Your task to perform on an android device: change alarm snooze length Image 0: 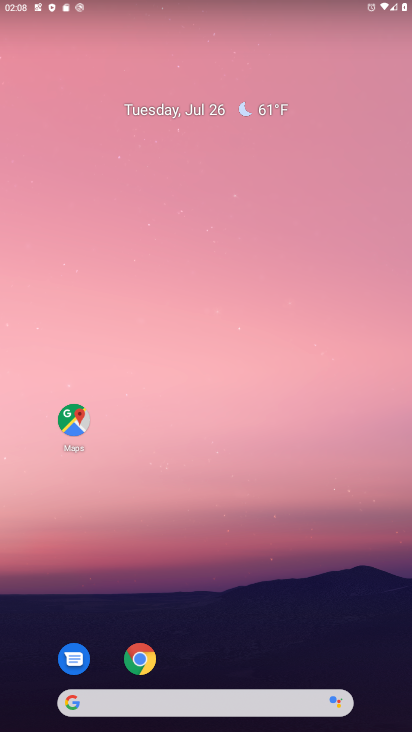
Step 0: drag from (311, 639) to (278, 144)
Your task to perform on an android device: change alarm snooze length Image 1: 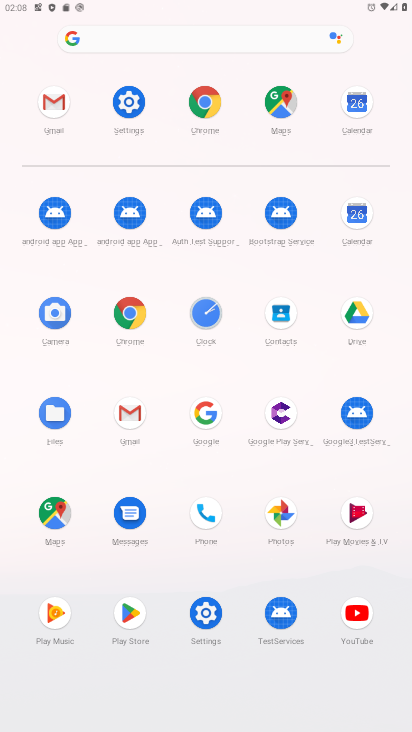
Step 1: click (204, 308)
Your task to perform on an android device: change alarm snooze length Image 2: 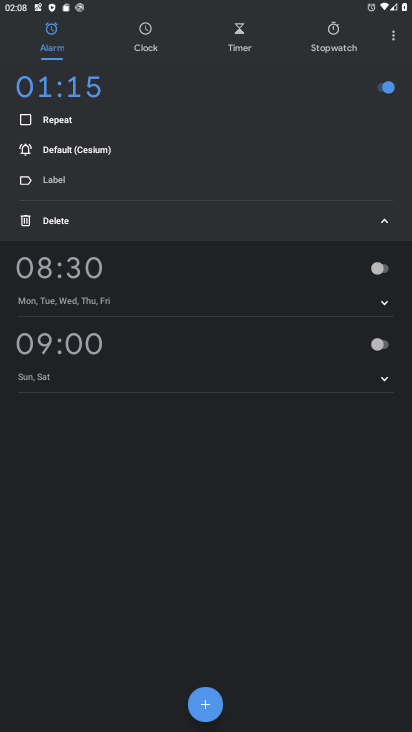
Step 2: click (391, 28)
Your task to perform on an android device: change alarm snooze length Image 3: 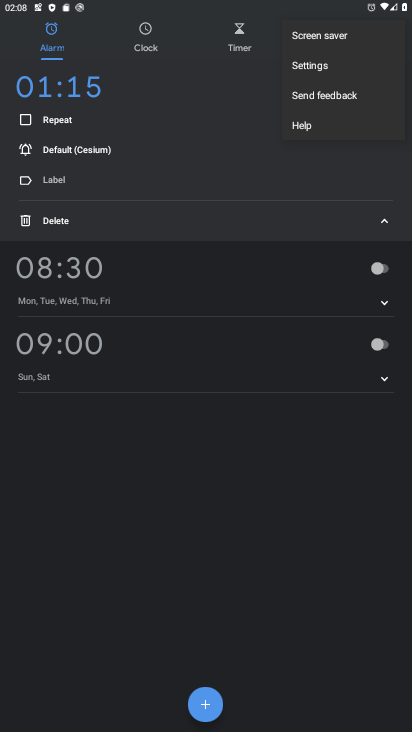
Step 3: click (315, 73)
Your task to perform on an android device: change alarm snooze length Image 4: 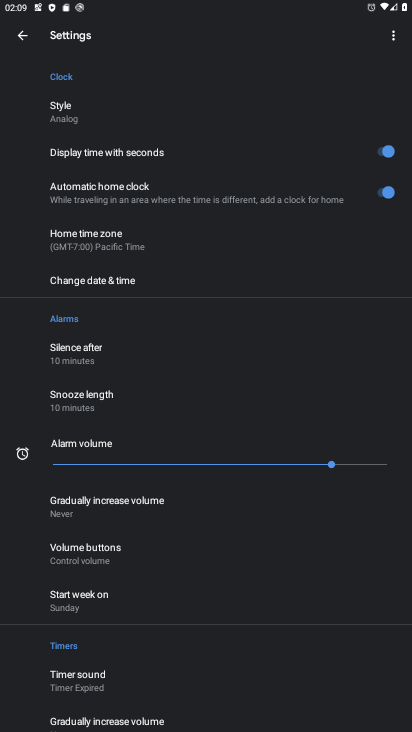
Step 4: click (111, 396)
Your task to perform on an android device: change alarm snooze length Image 5: 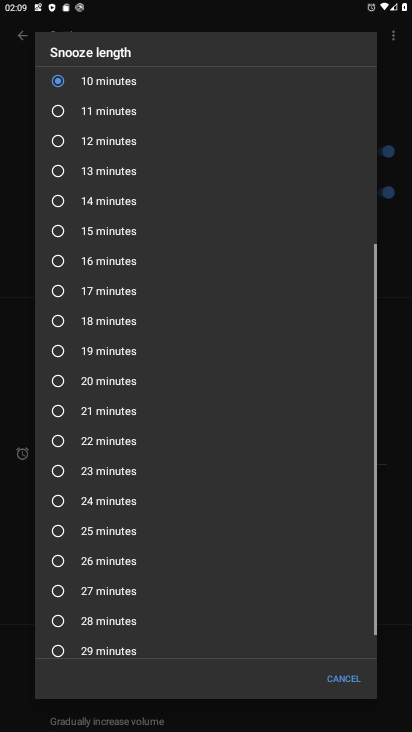
Step 5: click (125, 110)
Your task to perform on an android device: change alarm snooze length Image 6: 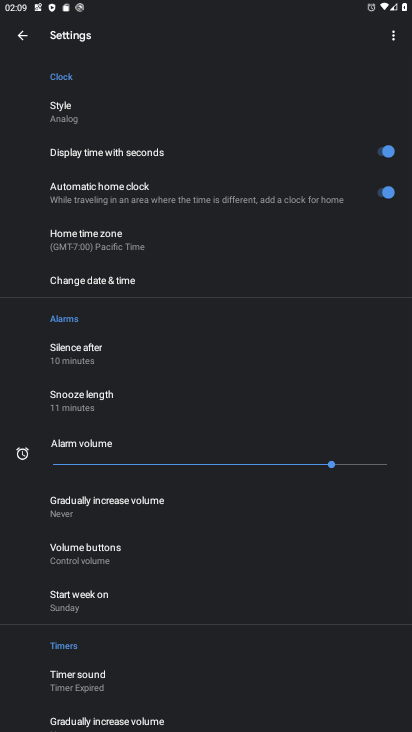
Step 6: task complete